Your task to perform on an android device: see tabs open on other devices in the chrome app Image 0: 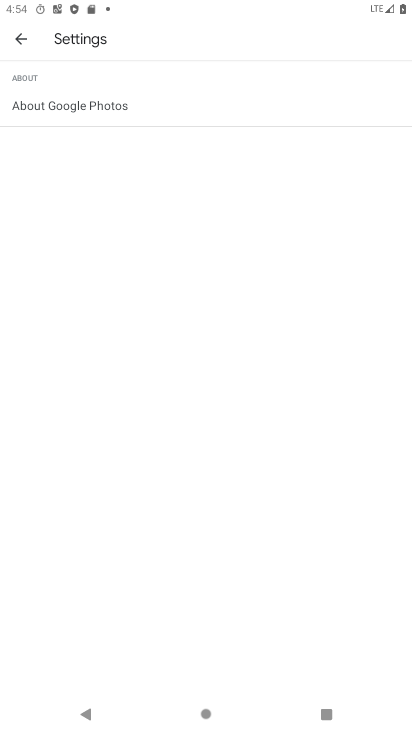
Step 0: press home button
Your task to perform on an android device: see tabs open on other devices in the chrome app Image 1: 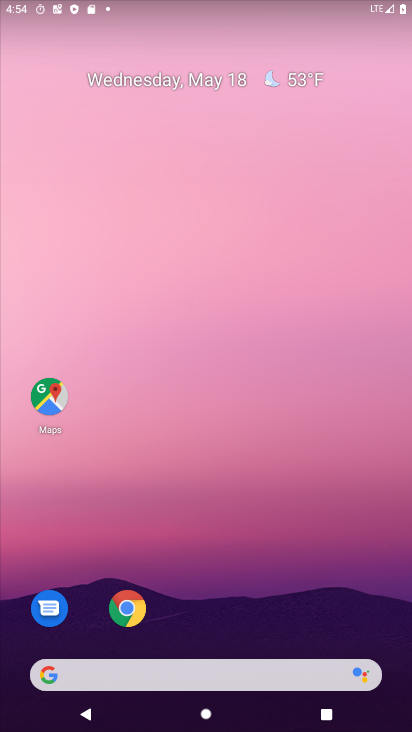
Step 1: drag from (244, 657) to (174, 8)
Your task to perform on an android device: see tabs open on other devices in the chrome app Image 2: 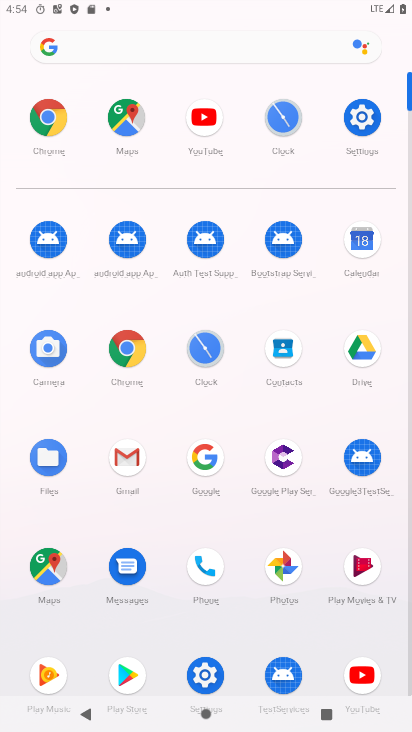
Step 2: click (123, 357)
Your task to perform on an android device: see tabs open on other devices in the chrome app Image 3: 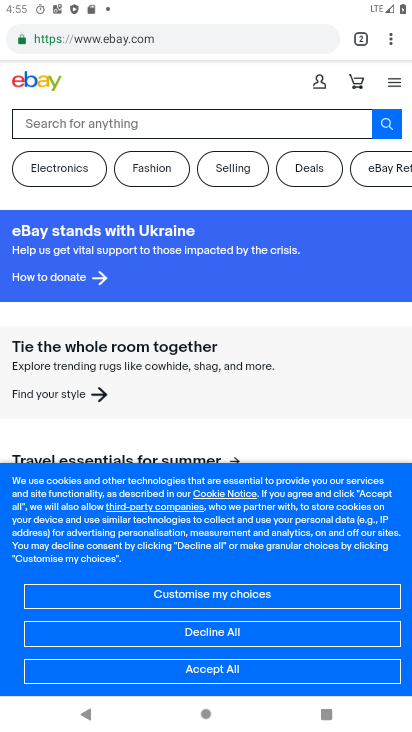
Step 3: click (385, 43)
Your task to perform on an android device: see tabs open on other devices in the chrome app Image 4: 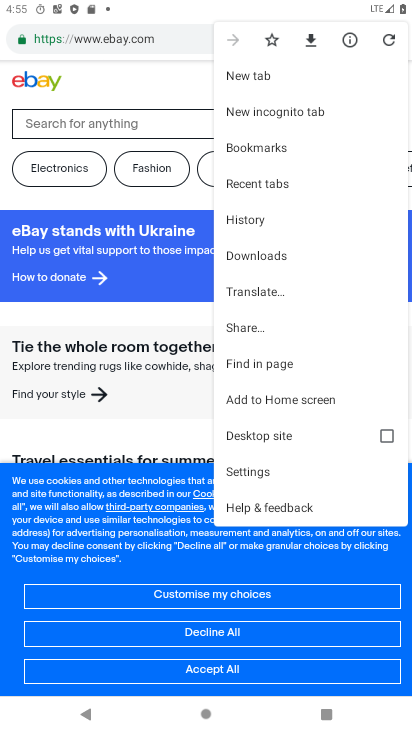
Step 4: click (251, 183)
Your task to perform on an android device: see tabs open on other devices in the chrome app Image 5: 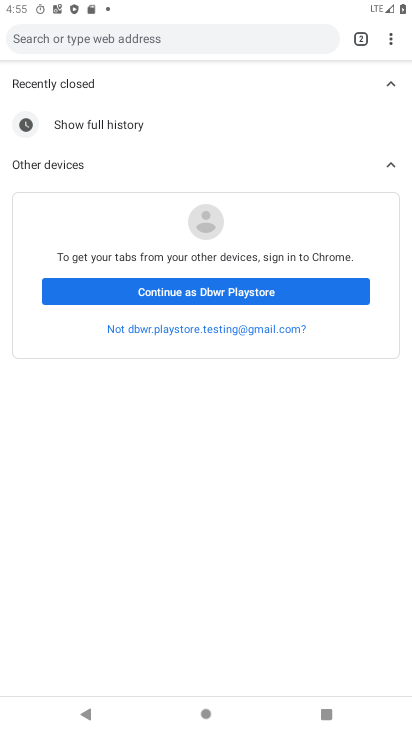
Step 5: task complete